Your task to perform on an android device: Open the map Image 0: 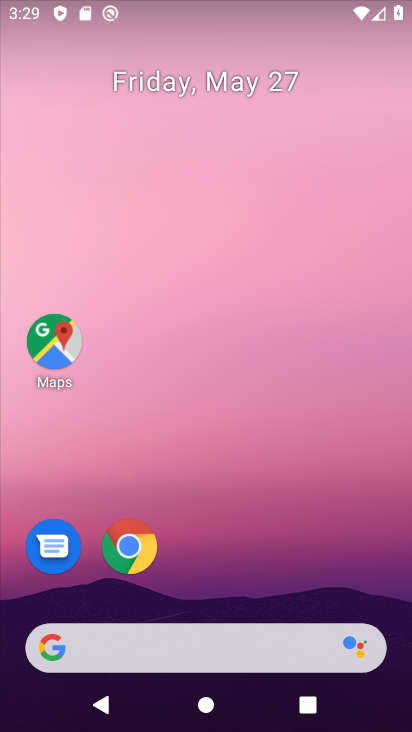
Step 0: click (51, 341)
Your task to perform on an android device: Open the map Image 1: 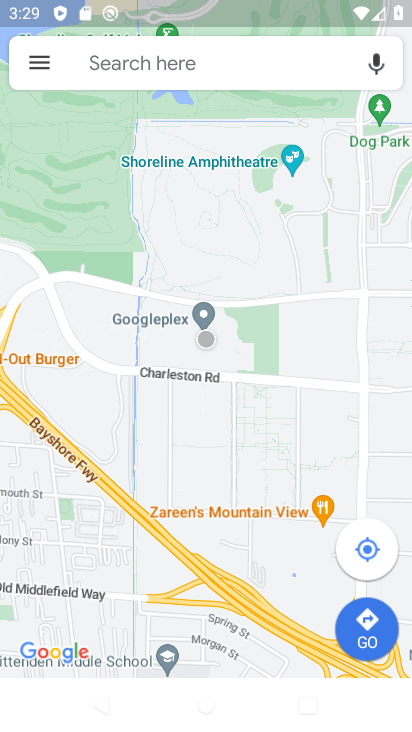
Step 1: task complete